Your task to perform on an android device: Open the phone app and click the voicemail tab. Image 0: 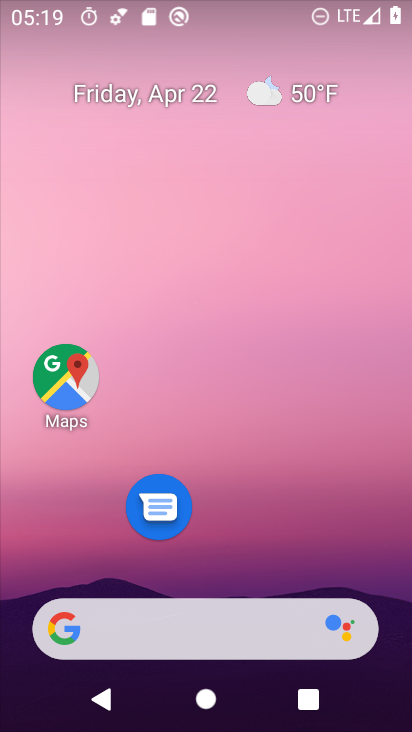
Step 0: drag from (209, 478) to (216, 170)
Your task to perform on an android device: Open the phone app and click the voicemail tab. Image 1: 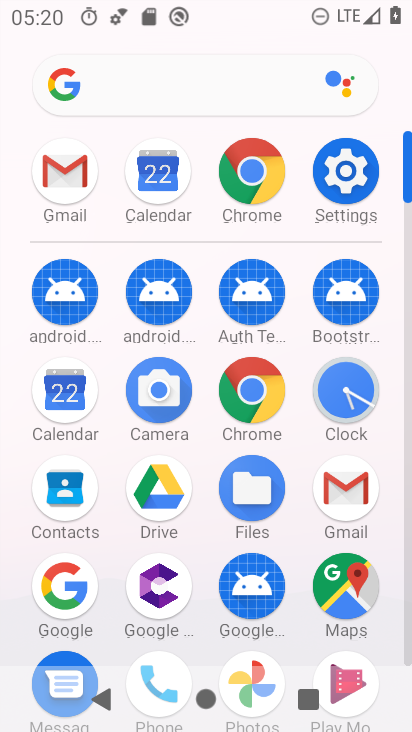
Step 1: drag from (194, 594) to (277, 116)
Your task to perform on an android device: Open the phone app and click the voicemail tab. Image 2: 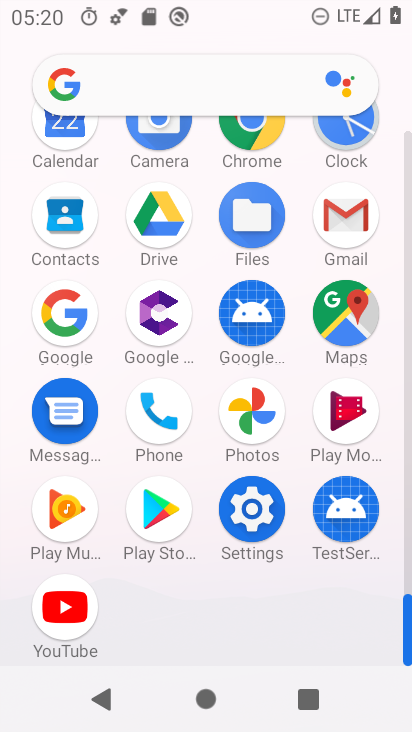
Step 2: click (150, 412)
Your task to perform on an android device: Open the phone app and click the voicemail tab. Image 3: 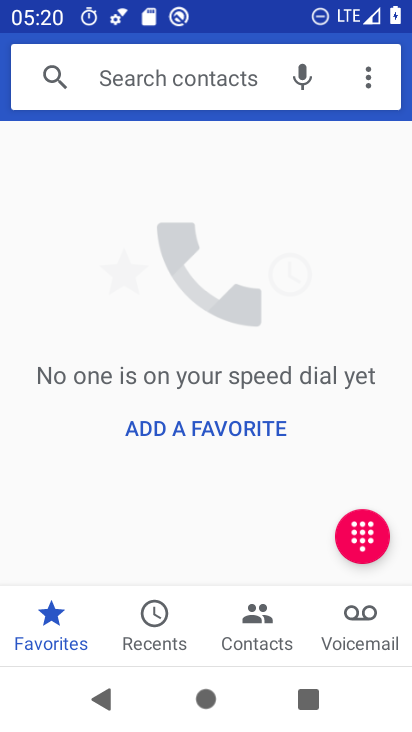
Step 3: click (347, 616)
Your task to perform on an android device: Open the phone app and click the voicemail tab. Image 4: 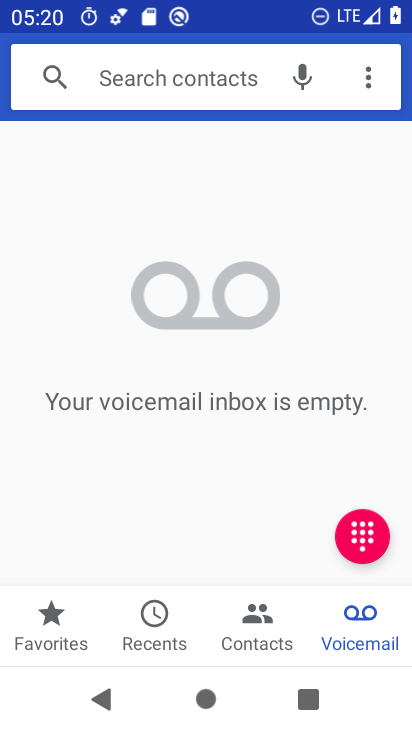
Step 4: task complete